Your task to perform on an android device: Go to accessibility settings Image 0: 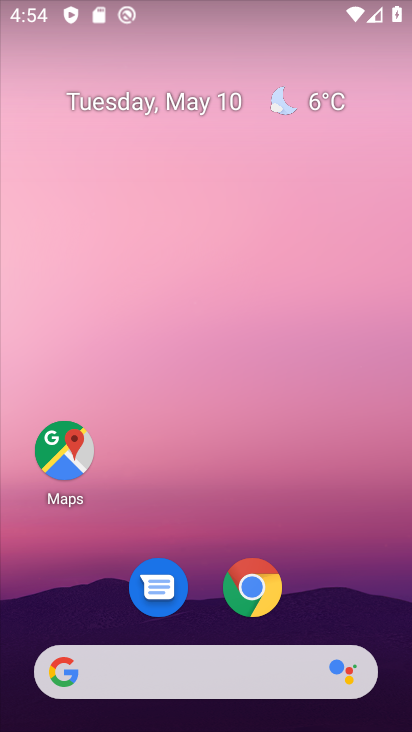
Step 0: drag from (185, 629) to (276, 61)
Your task to perform on an android device: Go to accessibility settings Image 1: 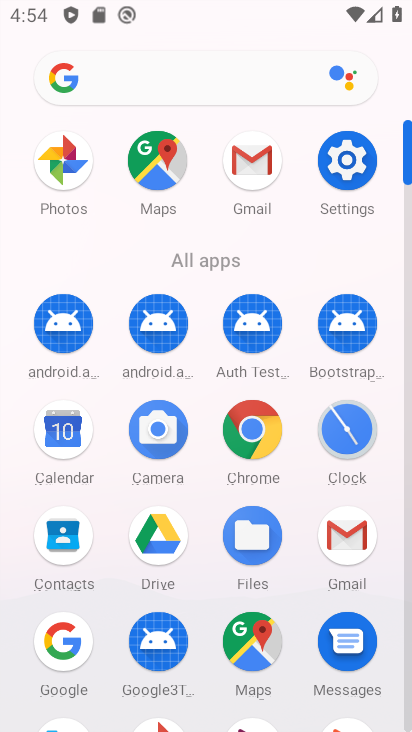
Step 1: drag from (200, 637) to (255, 359)
Your task to perform on an android device: Go to accessibility settings Image 2: 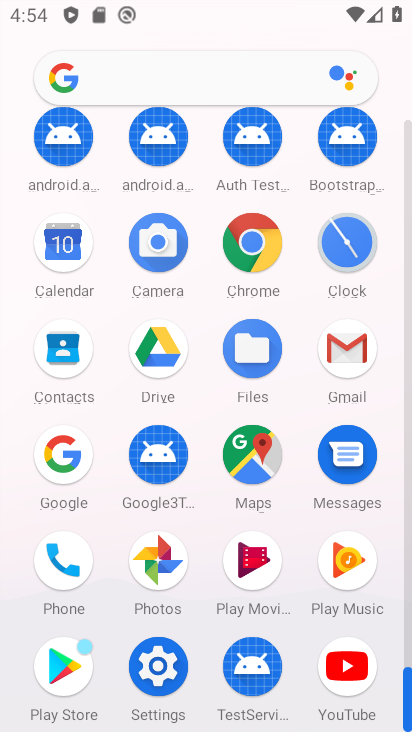
Step 2: click (167, 674)
Your task to perform on an android device: Go to accessibility settings Image 3: 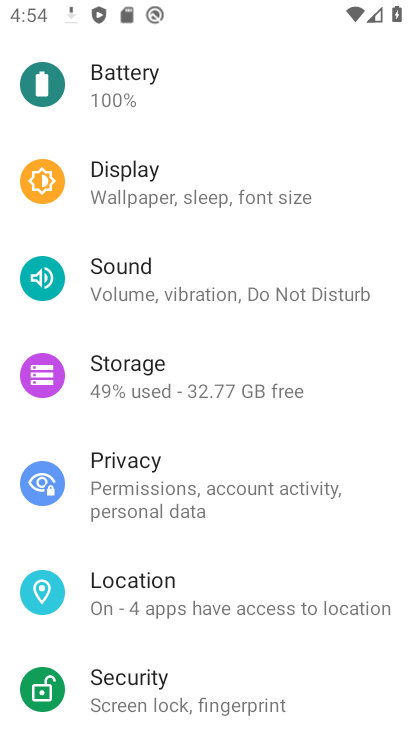
Step 3: drag from (199, 587) to (296, 119)
Your task to perform on an android device: Go to accessibility settings Image 4: 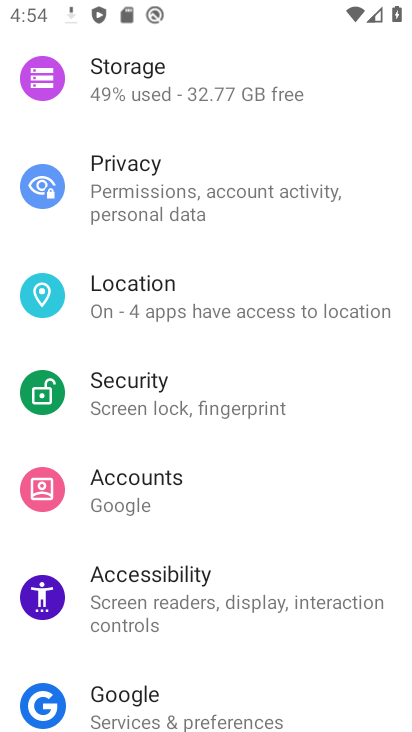
Step 4: click (204, 586)
Your task to perform on an android device: Go to accessibility settings Image 5: 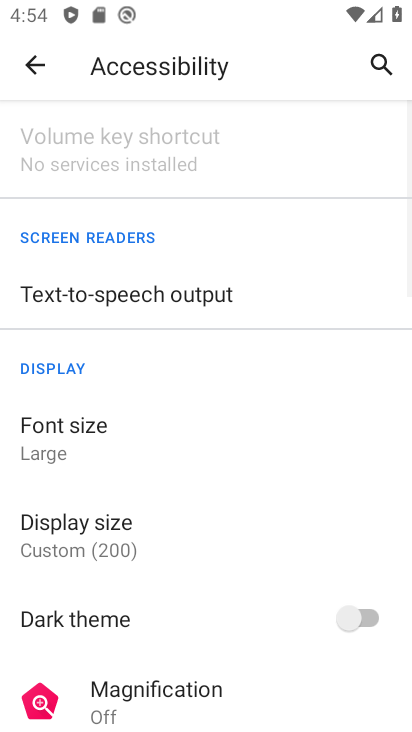
Step 5: task complete